Your task to perform on an android device: turn off location Image 0: 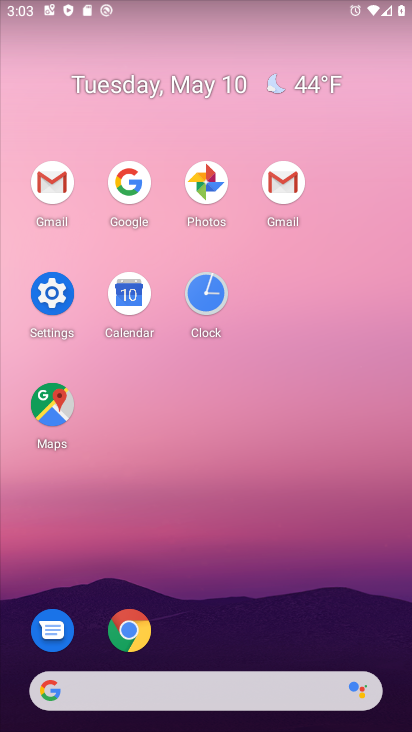
Step 0: click (72, 302)
Your task to perform on an android device: turn off location Image 1: 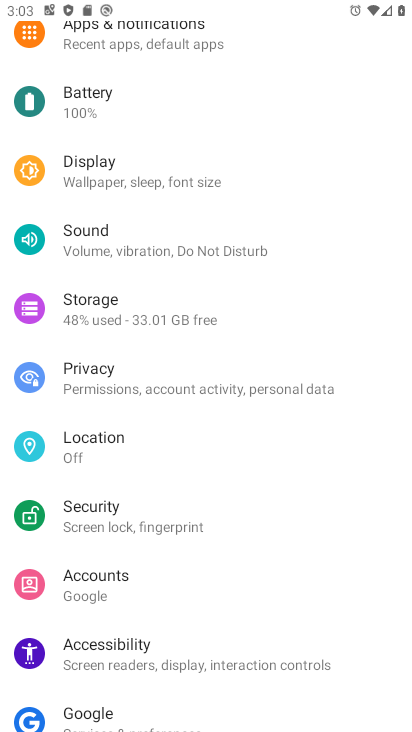
Step 1: click (188, 452)
Your task to perform on an android device: turn off location Image 2: 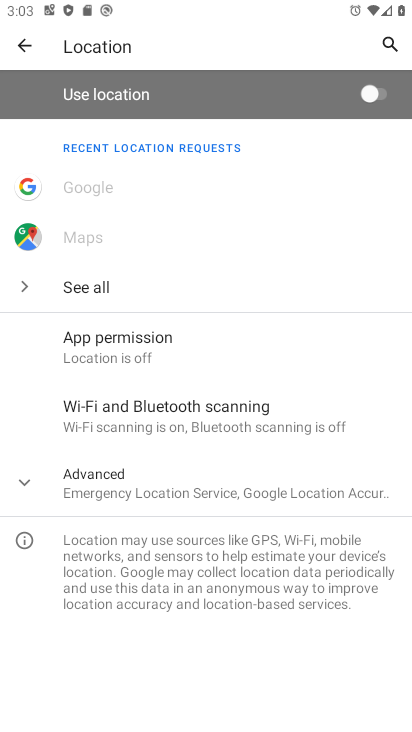
Step 2: task complete